Your task to perform on an android device: Clear the shopping cart on newegg.com. Add "bose soundlink" to the cart on newegg.com Image 0: 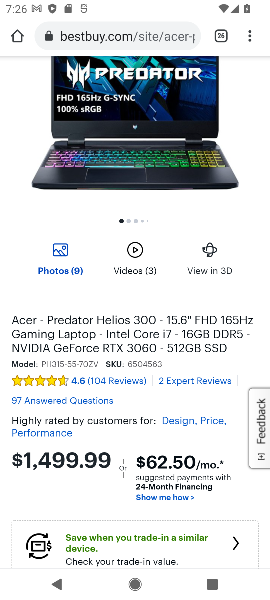
Step 0: task complete